Your task to perform on an android device: Go to accessibility settings Image 0: 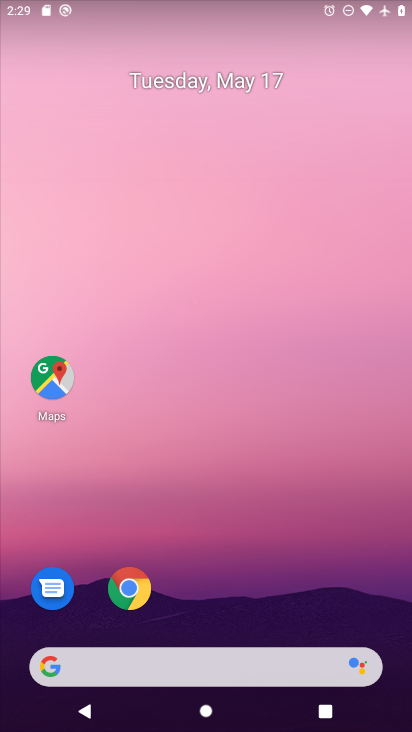
Step 0: drag from (176, 600) to (70, 112)
Your task to perform on an android device: Go to accessibility settings Image 1: 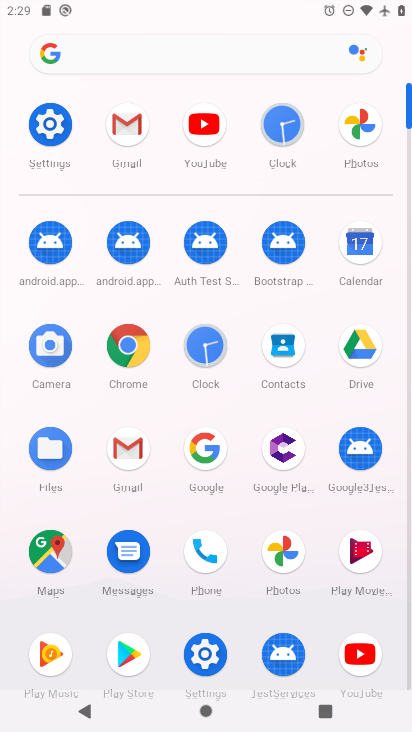
Step 1: click (209, 653)
Your task to perform on an android device: Go to accessibility settings Image 2: 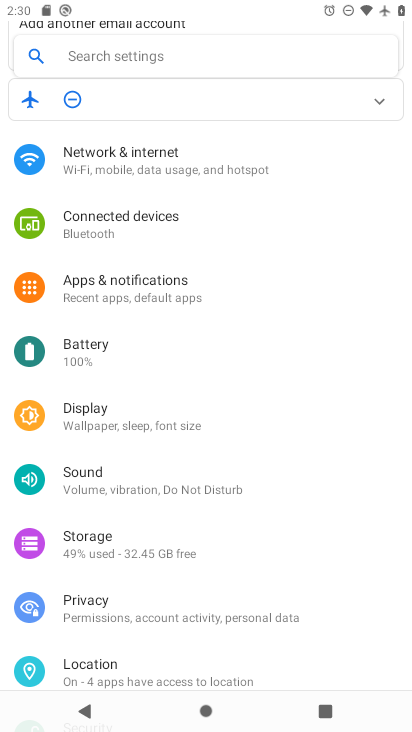
Step 2: drag from (131, 641) to (150, 244)
Your task to perform on an android device: Go to accessibility settings Image 3: 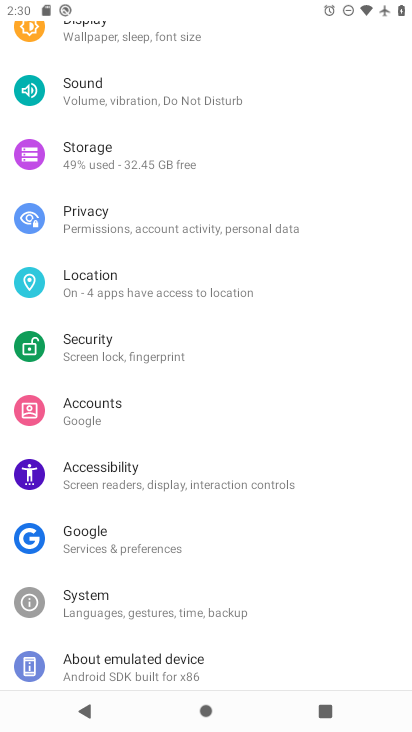
Step 3: click (144, 479)
Your task to perform on an android device: Go to accessibility settings Image 4: 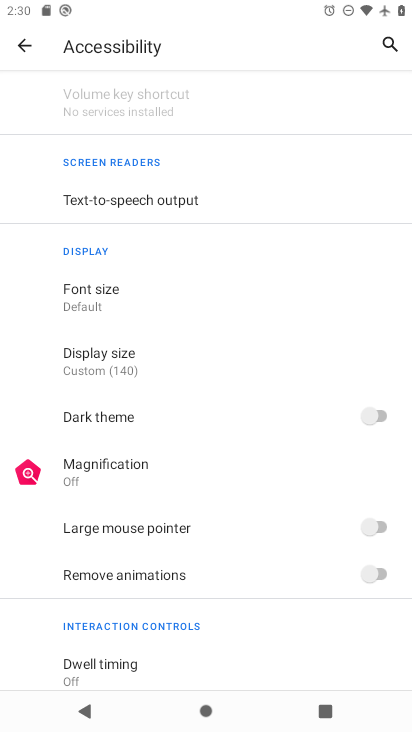
Step 4: task complete